Your task to perform on an android device: change text size in settings app Image 0: 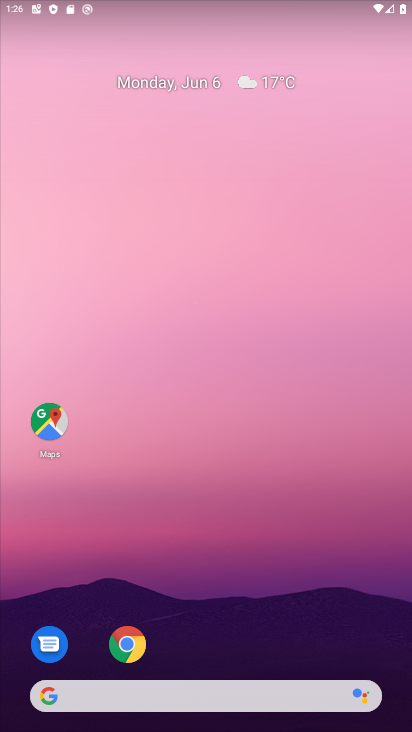
Step 0: drag from (320, 590) to (286, 217)
Your task to perform on an android device: change text size in settings app Image 1: 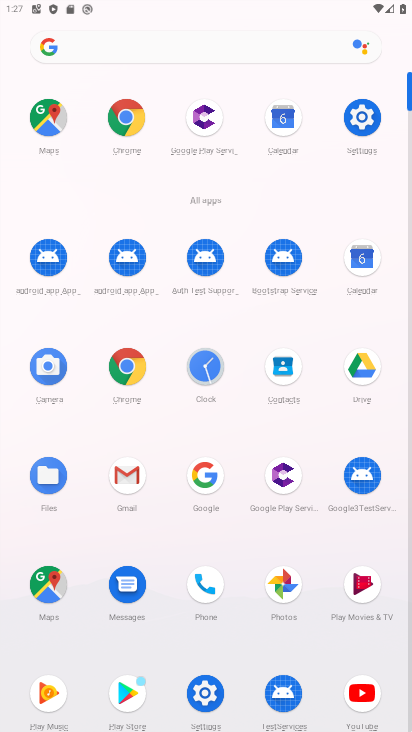
Step 1: click (203, 703)
Your task to perform on an android device: change text size in settings app Image 2: 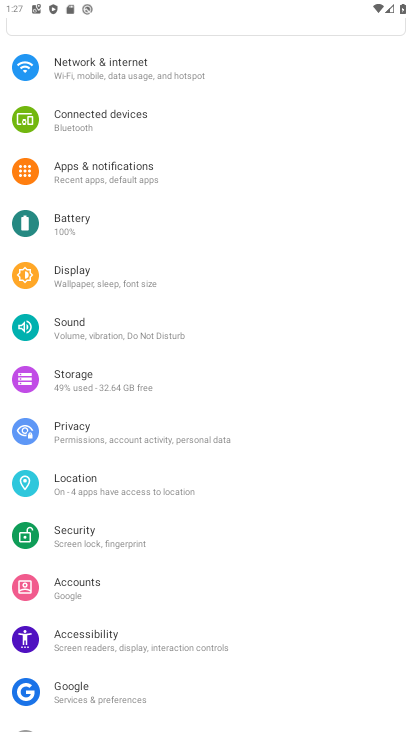
Step 2: click (93, 271)
Your task to perform on an android device: change text size in settings app Image 3: 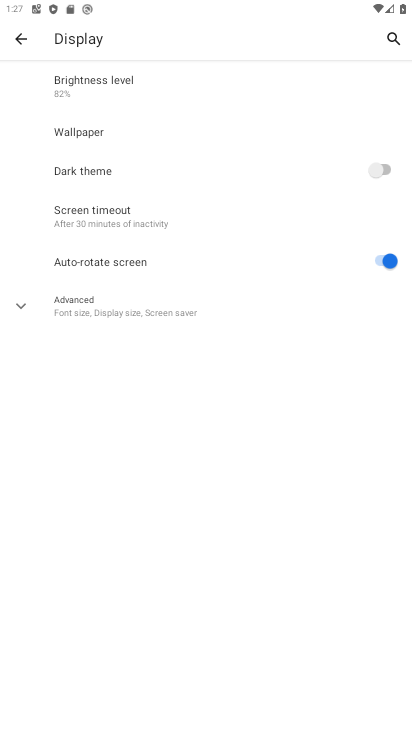
Step 3: click (124, 311)
Your task to perform on an android device: change text size in settings app Image 4: 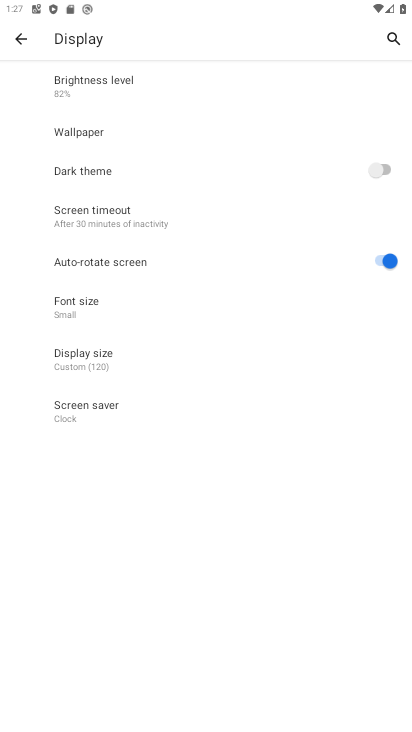
Step 4: click (112, 299)
Your task to perform on an android device: change text size in settings app Image 5: 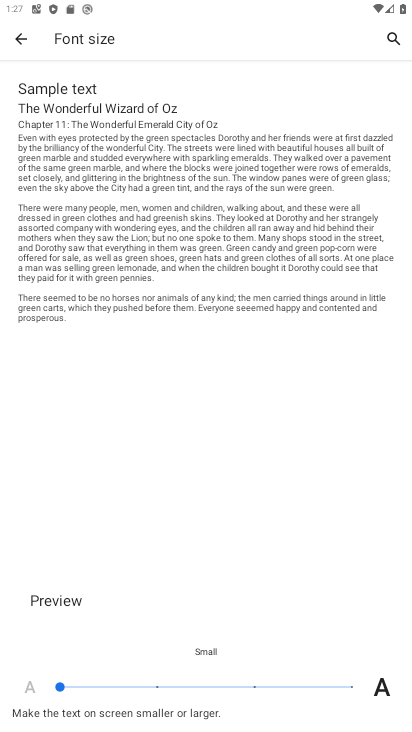
Step 5: click (151, 693)
Your task to perform on an android device: change text size in settings app Image 6: 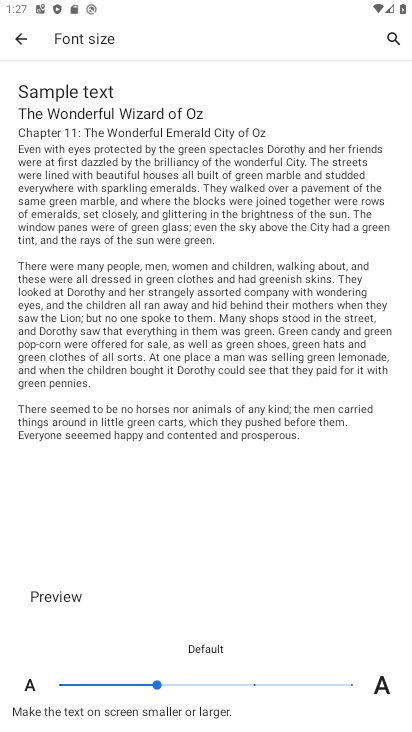
Step 6: task complete